Your task to perform on an android device: Open display settings Image 0: 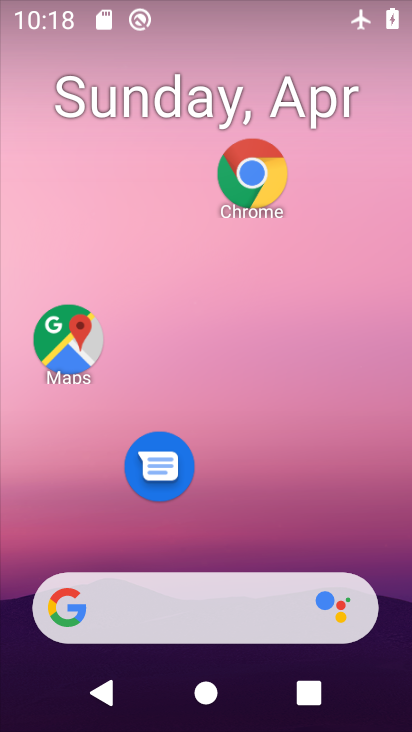
Step 0: drag from (347, 499) to (403, 128)
Your task to perform on an android device: Open display settings Image 1: 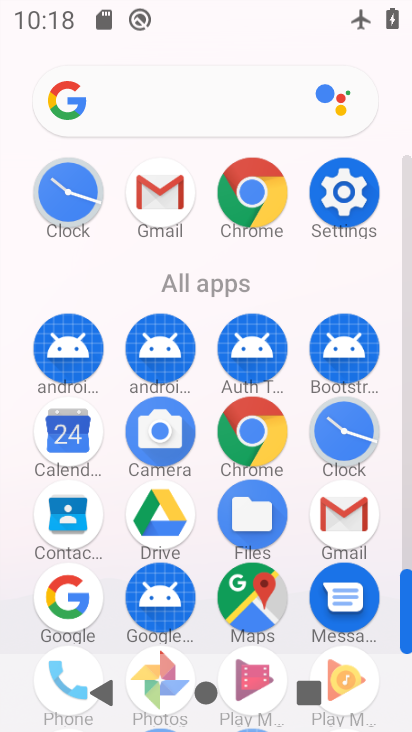
Step 1: click (347, 167)
Your task to perform on an android device: Open display settings Image 2: 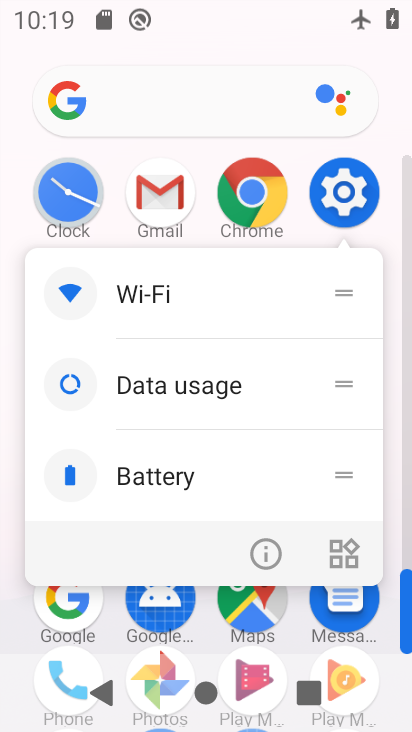
Step 2: click (330, 183)
Your task to perform on an android device: Open display settings Image 3: 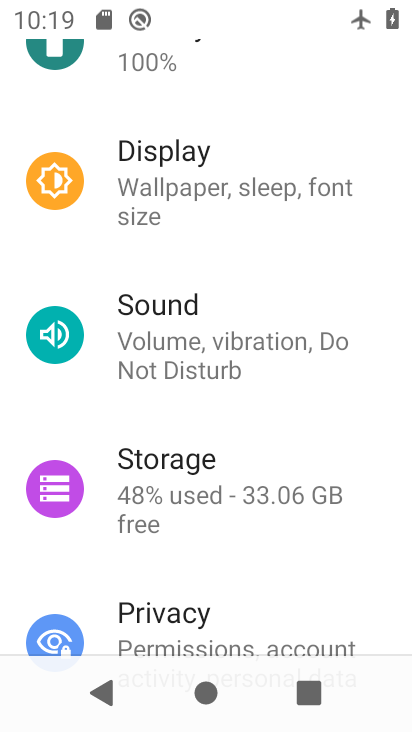
Step 3: click (195, 188)
Your task to perform on an android device: Open display settings Image 4: 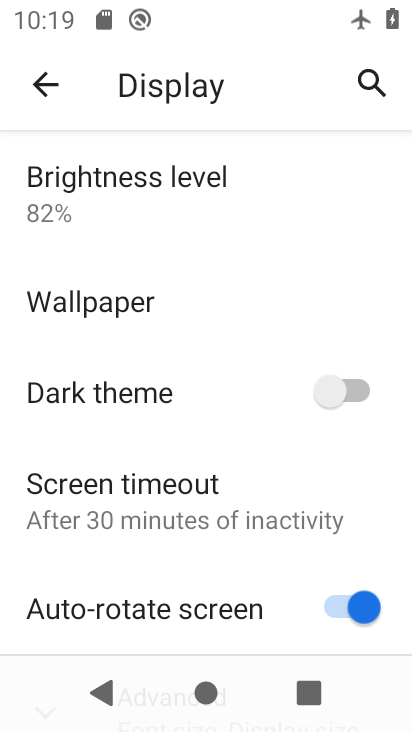
Step 4: task complete